Your task to perform on an android device: Go to ESPN.com Image 0: 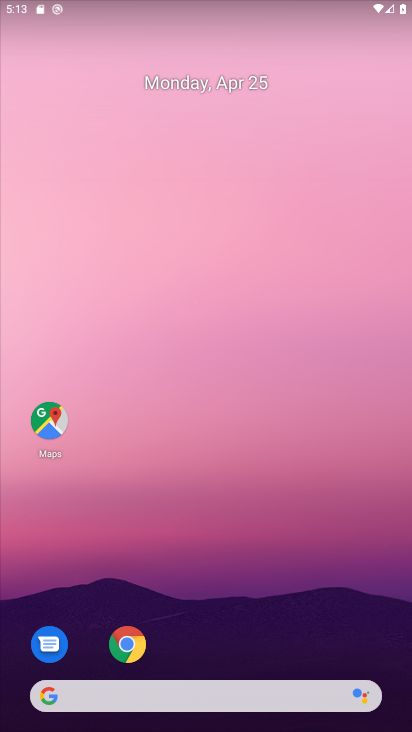
Step 0: click (137, 641)
Your task to perform on an android device: Go to ESPN.com Image 1: 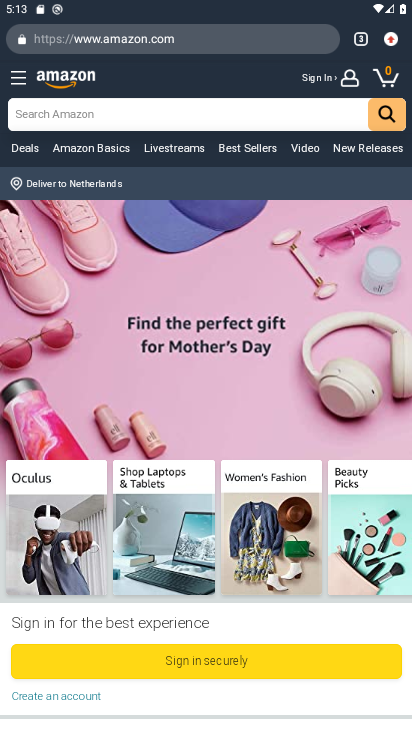
Step 1: click (362, 34)
Your task to perform on an android device: Go to ESPN.com Image 2: 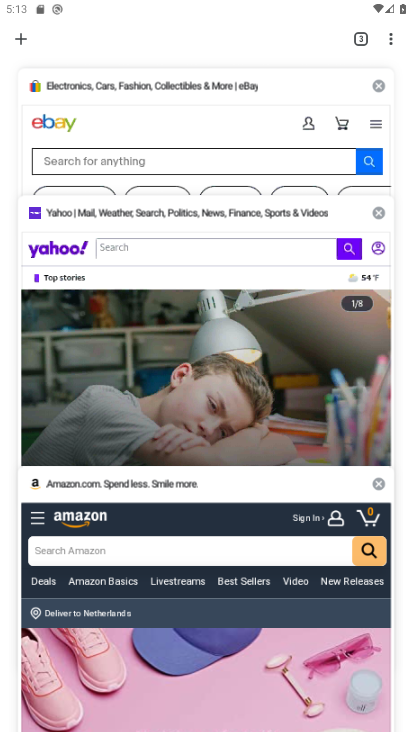
Step 2: click (19, 34)
Your task to perform on an android device: Go to ESPN.com Image 3: 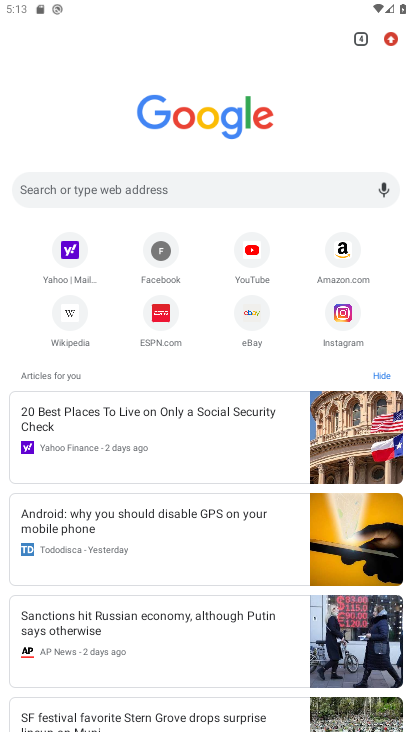
Step 3: click (164, 308)
Your task to perform on an android device: Go to ESPN.com Image 4: 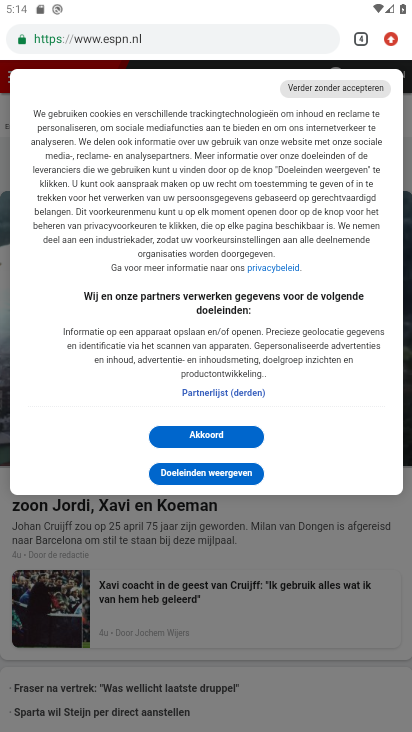
Step 4: task complete